Your task to perform on an android device: Go to wifi settings Image 0: 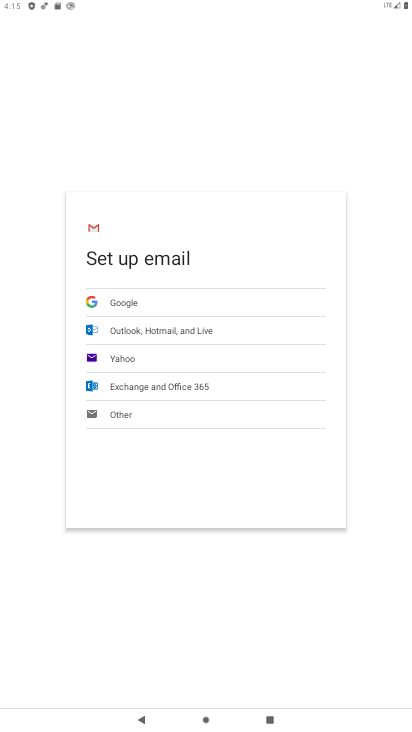
Step 0: press back button
Your task to perform on an android device: Go to wifi settings Image 1: 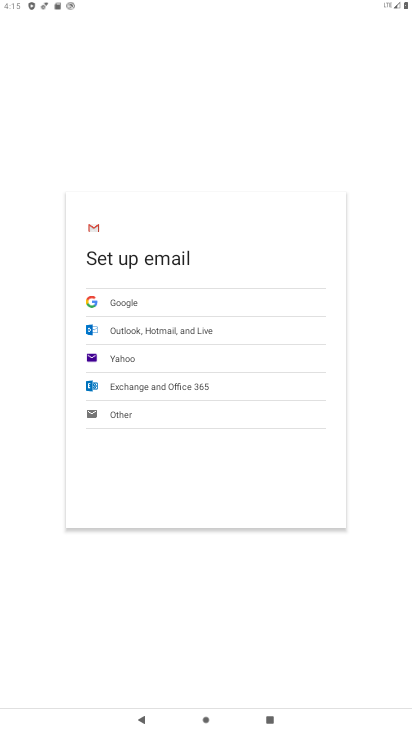
Step 1: press back button
Your task to perform on an android device: Go to wifi settings Image 2: 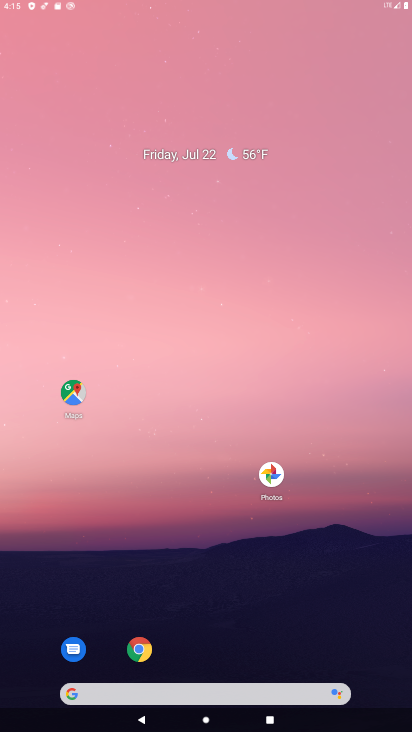
Step 2: press back button
Your task to perform on an android device: Go to wifi settings Image 3: 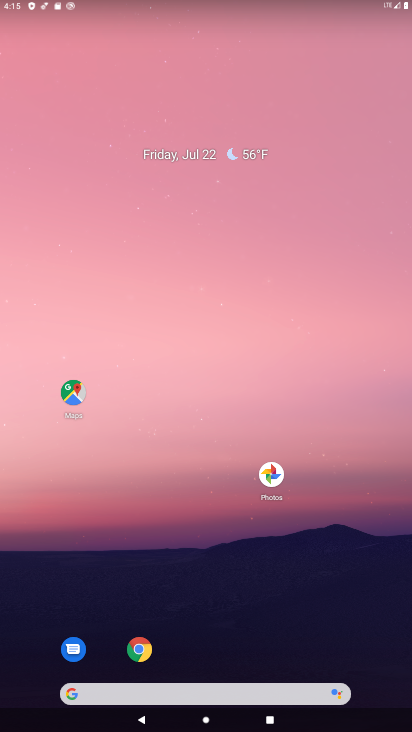
Step 3: drag from (194, 417) to (179, 38)
Your task to perform on an android device: Go to wifi settings Image 4: 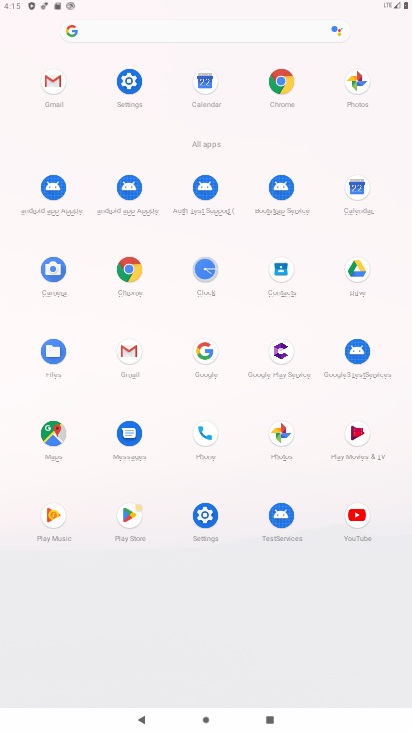
Step 4: click (199, 520)
Your task to perform on an android device: Go to wifi settings Image 5: 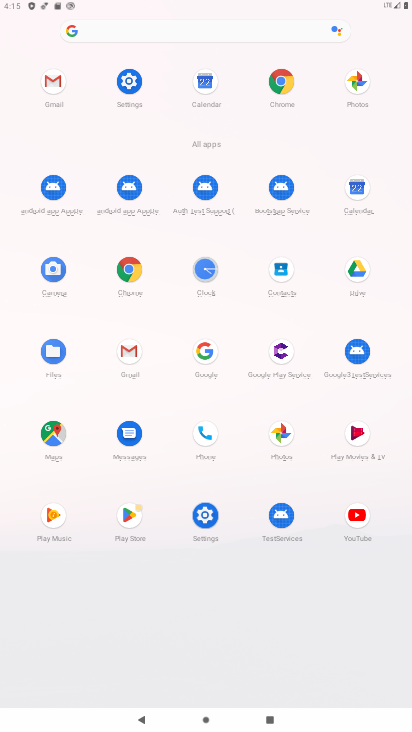
Step 5: click (199, 520)
Your task to perform on an android device: Go to wifi settings Image 6: 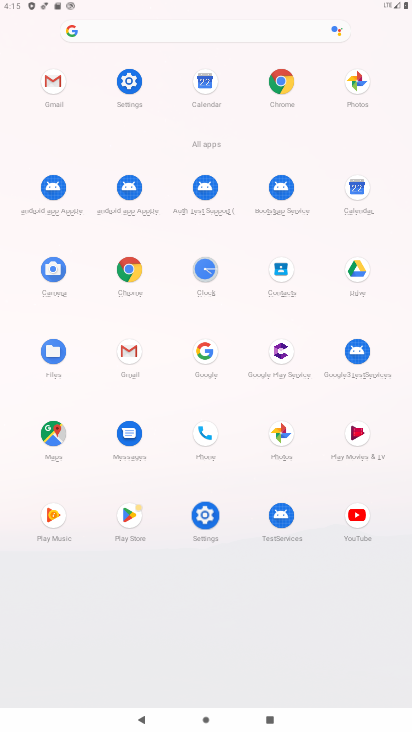
Step 6: click (199, 520)
Your task to perform on an android device: Go to wifi settings Image 7: 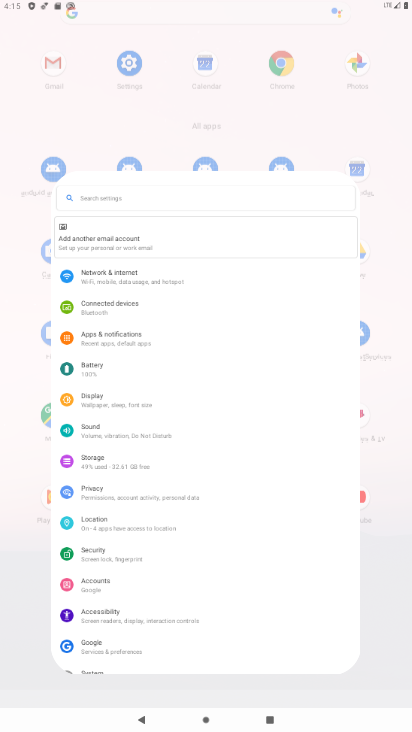
Step 7: click (199, 520)
Your task to perform on an android device: Go to wifi settings Image 8: 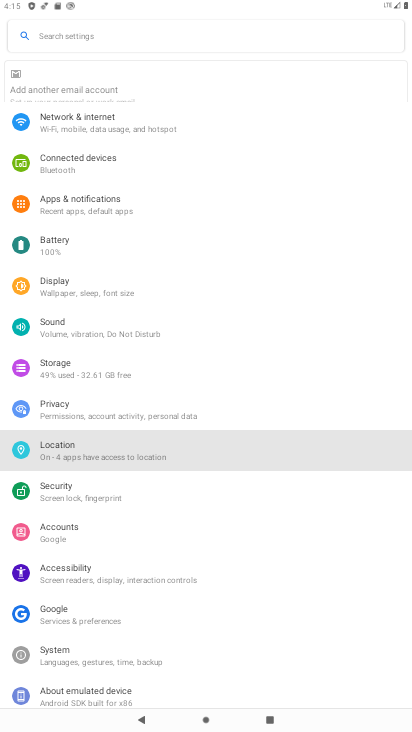
Step 8: click (202, 519)
Your task to perform on an android device: Go to wifi settings Image 9: 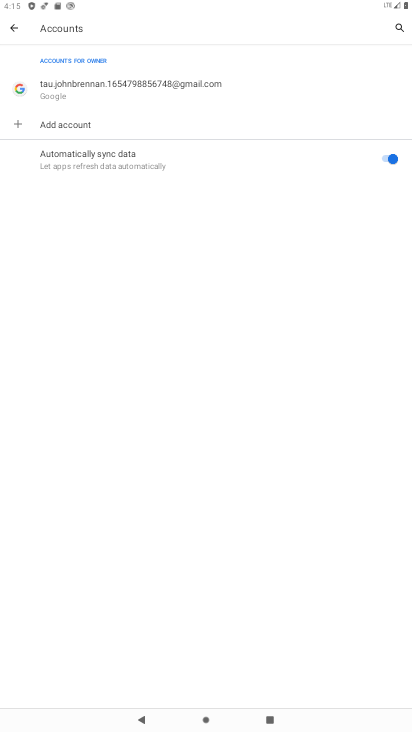
Step 9: click (20, 30)
Your task to perform on an android device: Go to wifi settings Image 10: 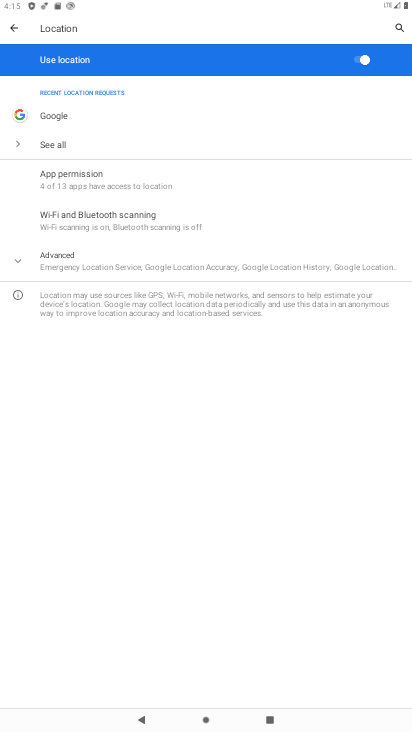
Step 10: click (13, 17)
Your task to perform on an android device: Go to wifi settings Image 11: 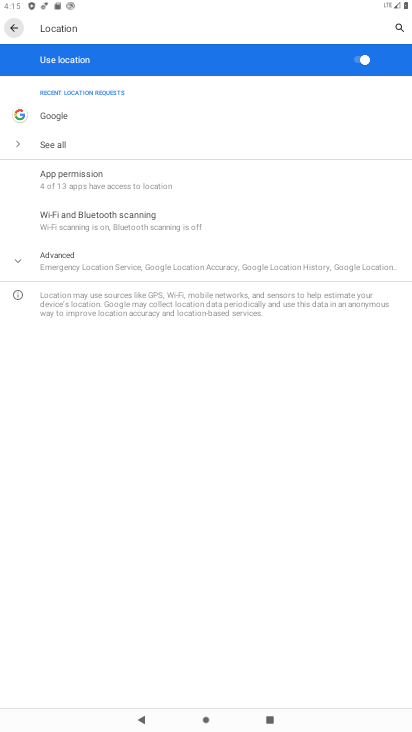
Step 11: click (13, 17)
Your task to perform on an android device: Go to wifi settings Image 12: 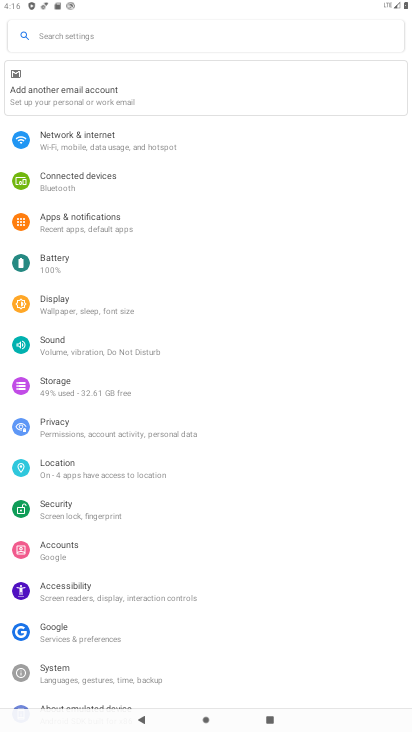
Step 12: click (83, 146)
Your task to perform on an android device: Go to wifi settings Image 13: 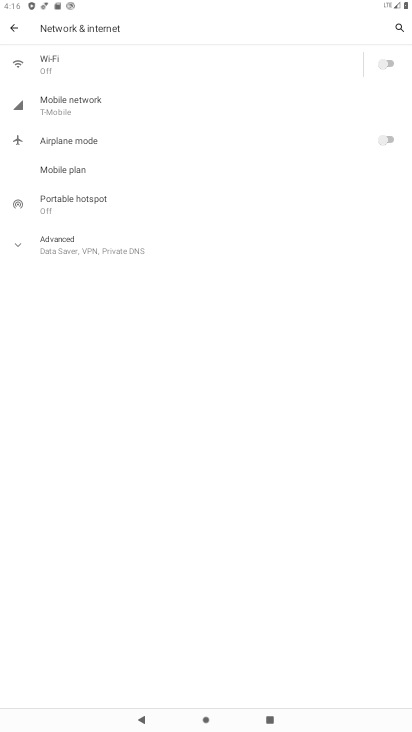
Step 13: click (203, 20)
Your task to perform on an android device: Go to wifi settings Image 14: 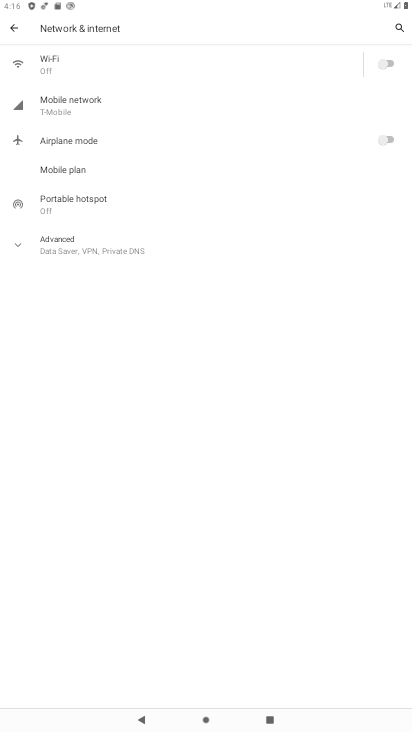
Step 14: click (385, 72)
Your task to perform on an android device: Go to wifi settings Image 15: 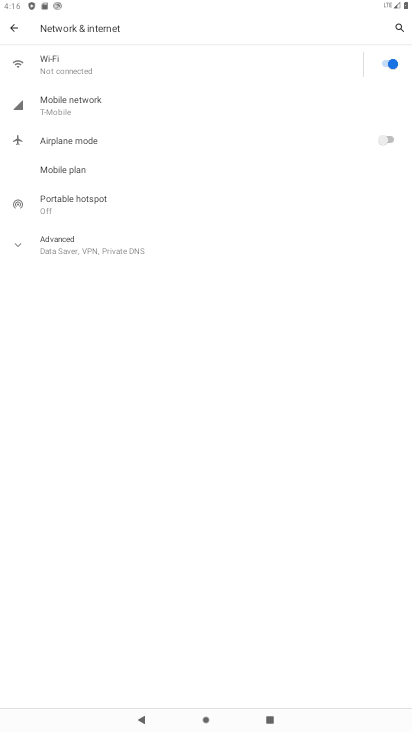
Step 15: click (392, 62)
Your task to perform on an android device: Go to wifi settings Image 16: 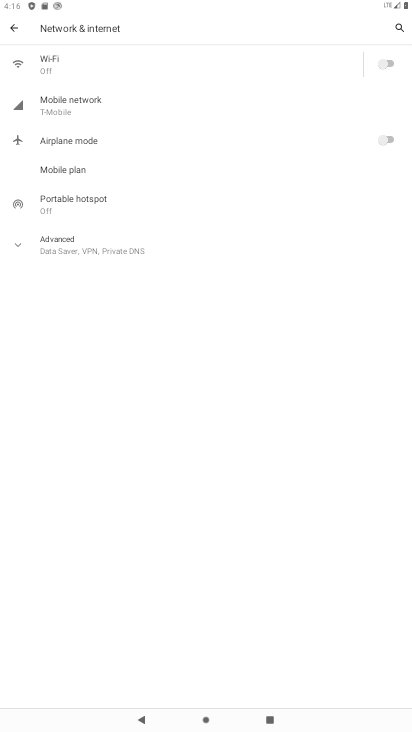
Step 16: task complete